Your task to perform on an android device: turn off sleep mode Image 0: 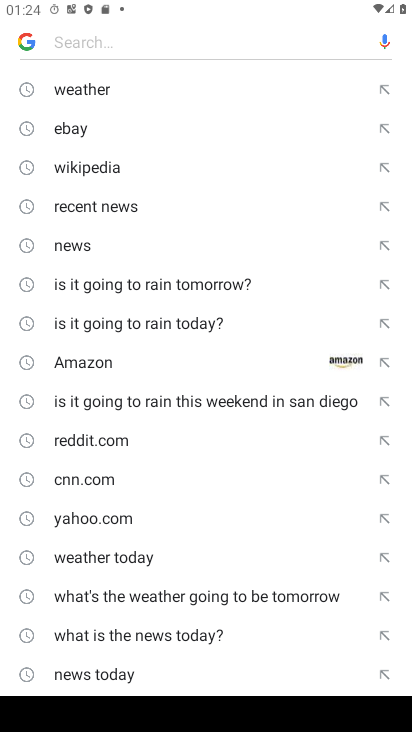
Step 0: press home button
Your task to perform on an android device: turn off sleep mode Image 1: 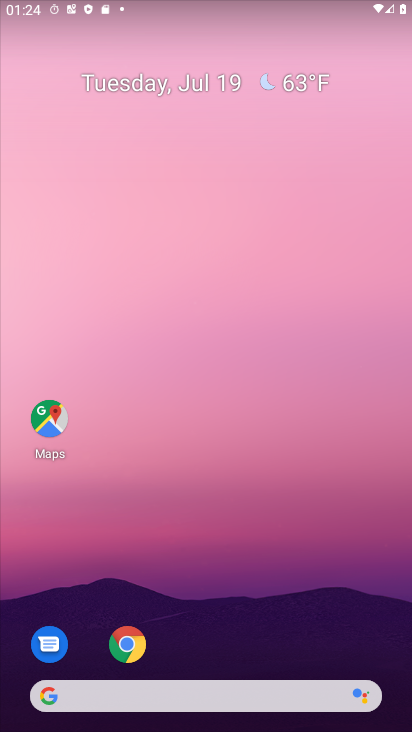
Step 1: drag from (235, 718) to (256, 155)
Your task to perform on an android device: turn off sleep mode Image 2: 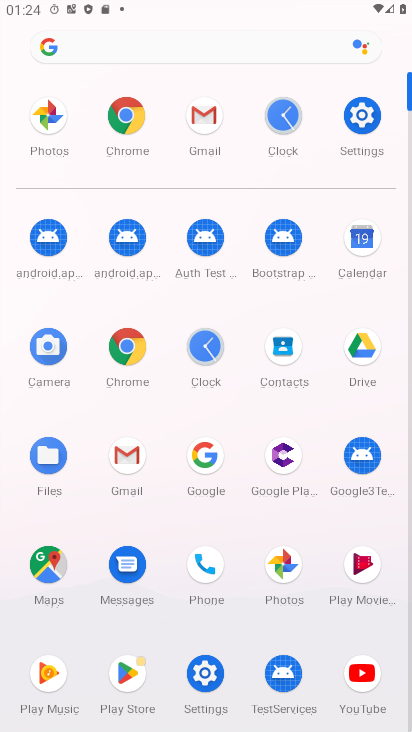
Step 2: click (369, 116)
Your task to perform on an android device: turn off sleep mode Image 3: 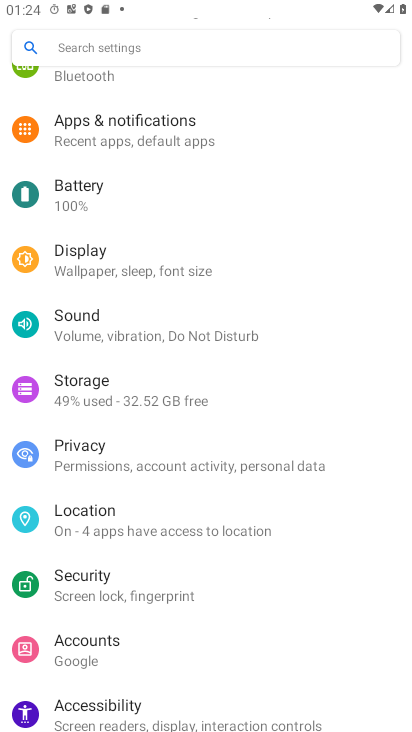
Step 3: click (130, 273)
Your task to perform on an android device: turn off sleep mode Image 4: 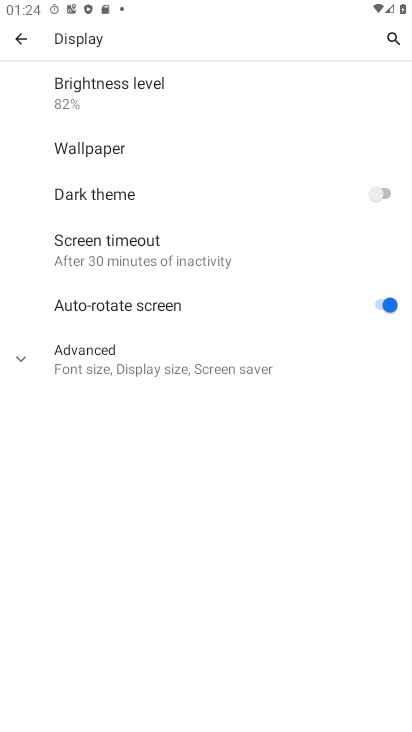
Step 4: click (145, 373)
Your task to perform on an android device: turn off sleep mode Image 5: 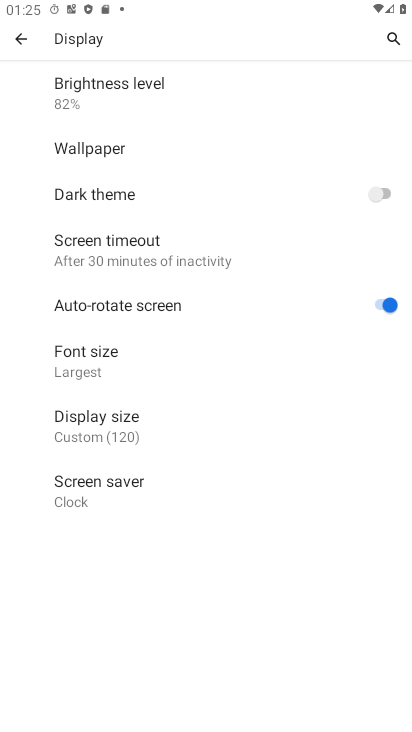
Step 5: task complete